Your task to perform on an android device: What's the weather going to be this weekend? Image 0: 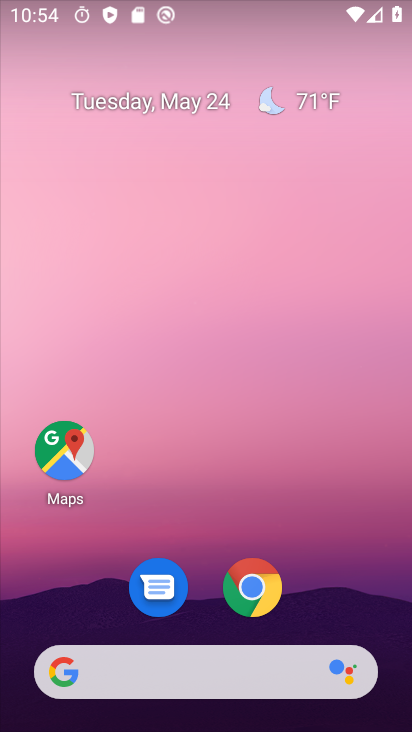
Step 0: drag from (285, 518) to (188, 215)
Your task to perform on an android device: What's the weather going to be this weekend? Image 1: 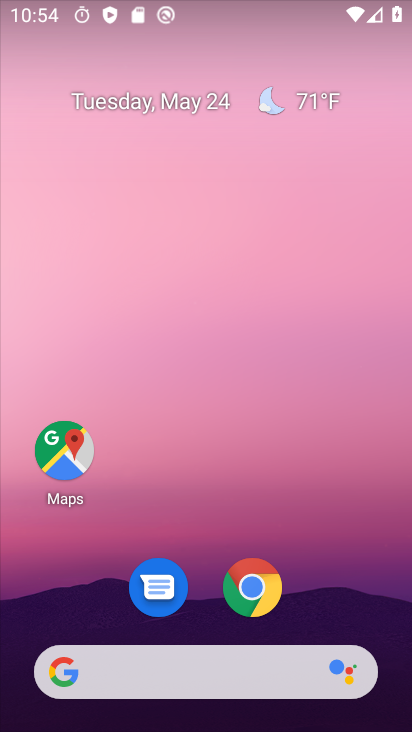
Step 1: drag from (277, 554) to (181, 191)
Your task to perform on an android device: What's the weather going to be this weekend? Image 2: 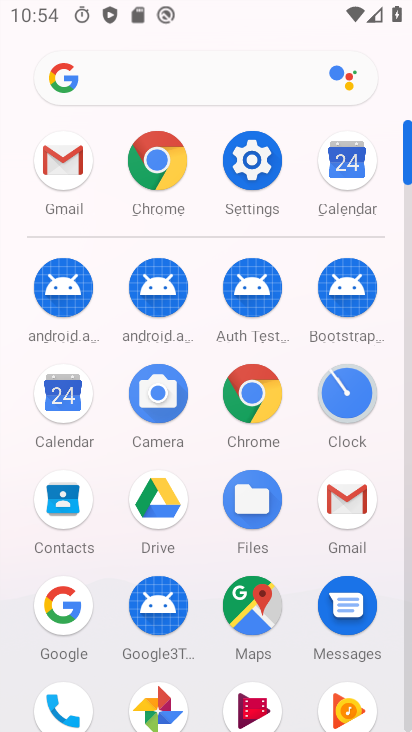
Step 2: press back button
Your task to perform on an android device: What's the weather going to be this weekend? Image 3: 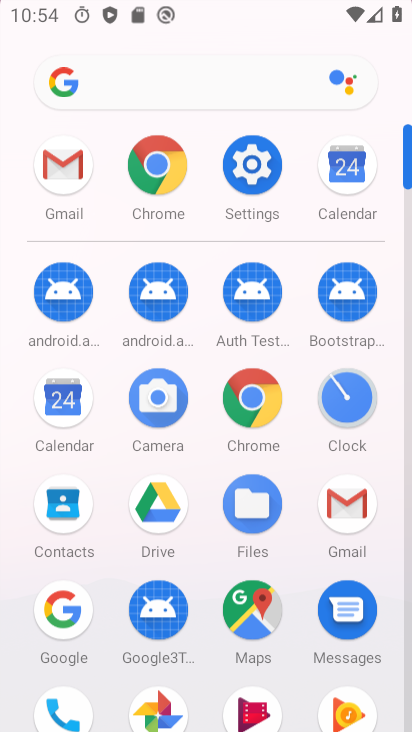
Step 3: press back button
Your task to perform on an android device: What's the weather going to be this weekend? Image 4: 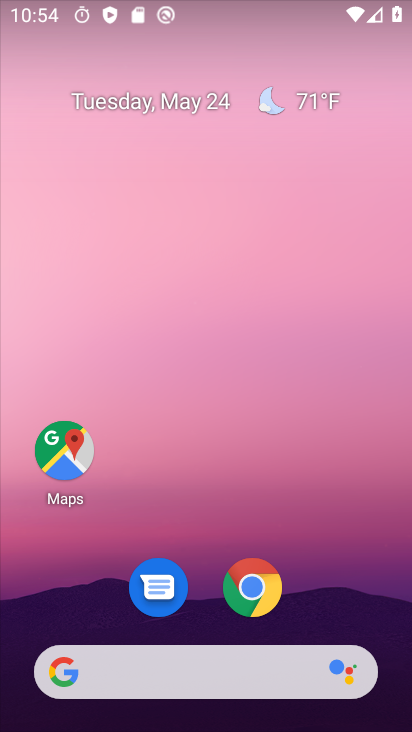
Step 4: press back button
Your task to perform on an android device: What's the weather going to be this weekend? Image 5: 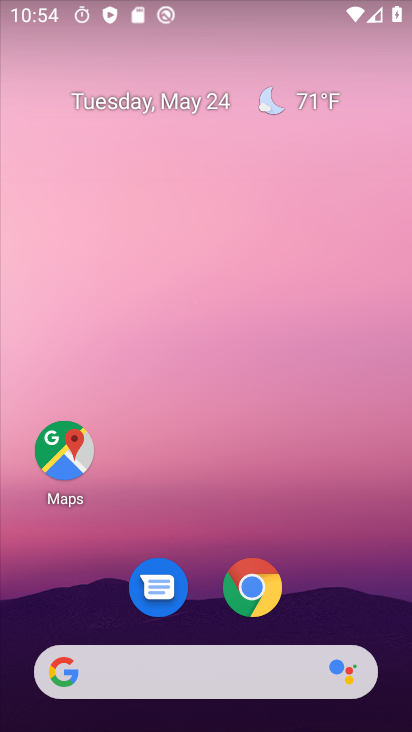
Step 5: press back button
Your task to perform on an android device: What's the weather going to be this weekend? Image 6: 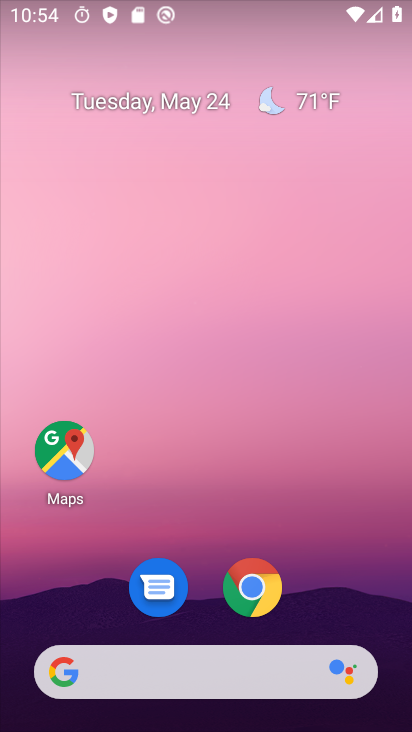
Step 6: drag from (5, 133) to (391, 245)
Your task to perform on an android device: What's the weather going to be this weekend? Image 7: 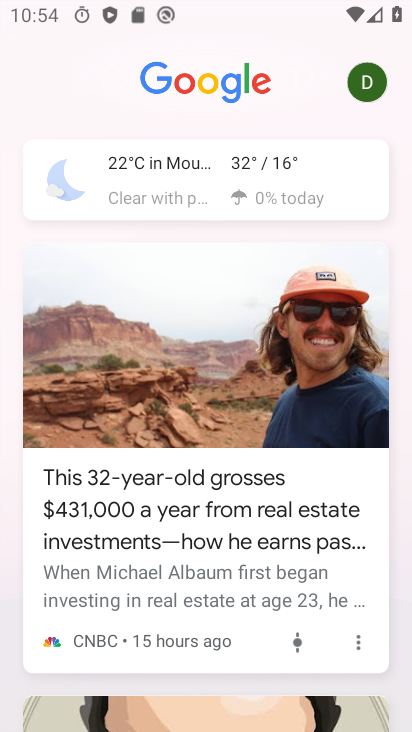
Step 7: click (149, 176)
Your task to perform on an android device: What's the weather going to be this weekend? Image 8: 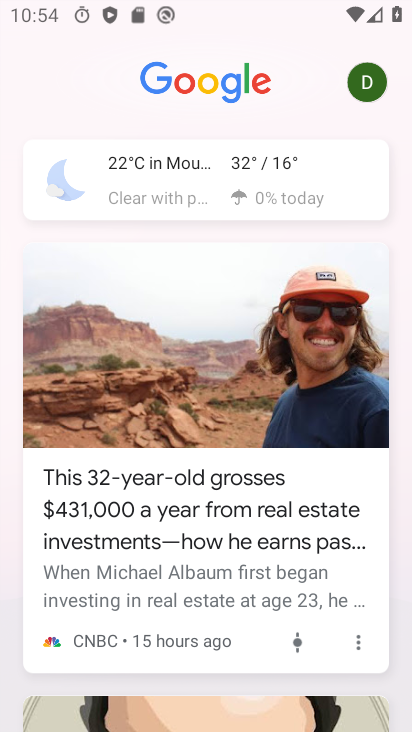
Step 8: click (156, 173)
Your task to perform on an android device: What's the weather going to be this weekend? Image 9: 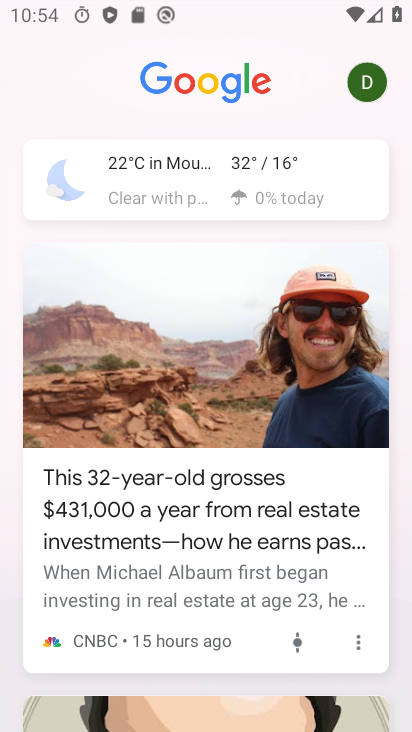
Step 9: click (158, 172)
Your task to perform on an android device: What's the weather going to be this weekend? Image 10: 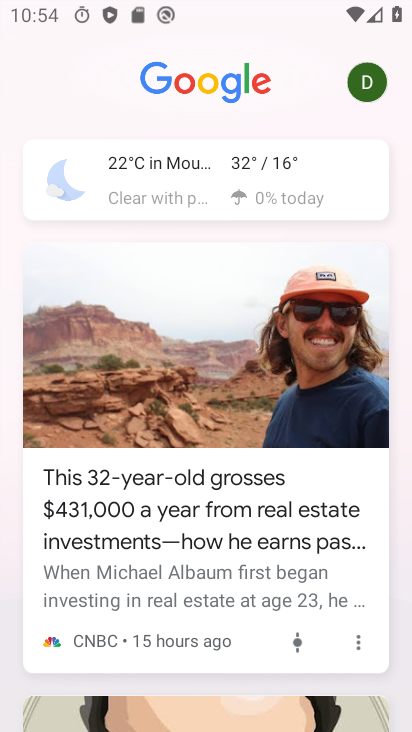
Step 10: click (164, 167)
Your task to perform on an android device: What's the weather going to be this weekend? Image 11: 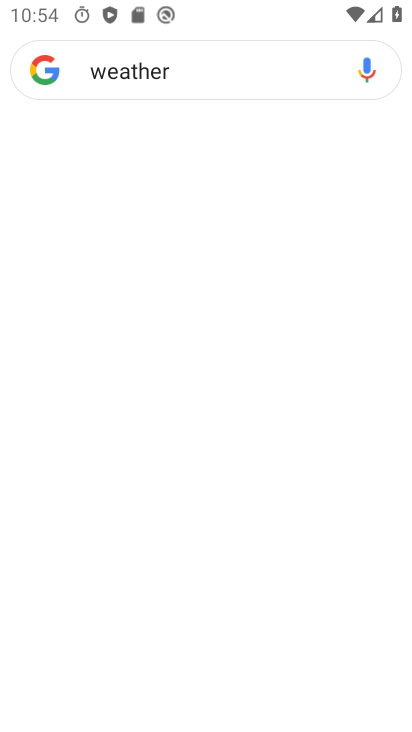
Step 11: click (177, 175)
Your task to perform on an android device: What's the weather going to be this weekend? Image 12: 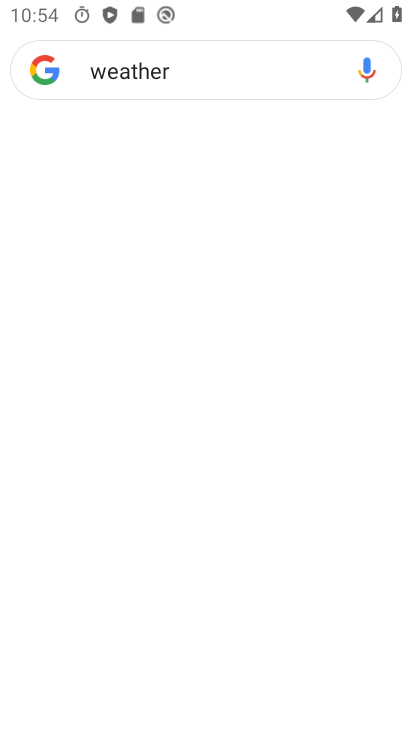
Step 12: click (178, 176)
Your task to perform on an android device: What's the weather going to be this weekend? Image 13: 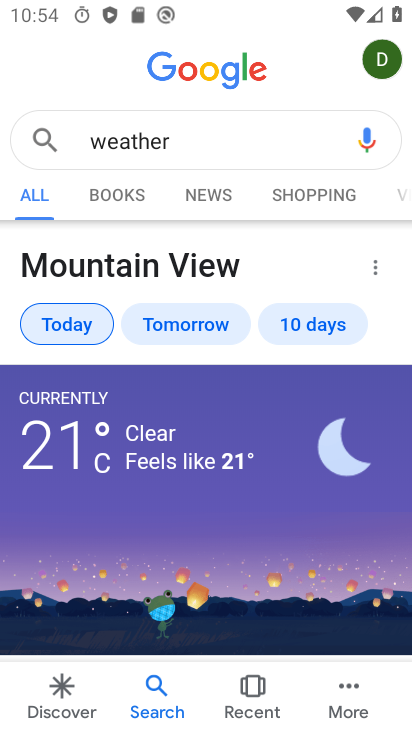
Step 13: drag from (190, 484) to (183, 323)
Your task to perform on an android device: What's the weather going to be this weekend? Image 14: 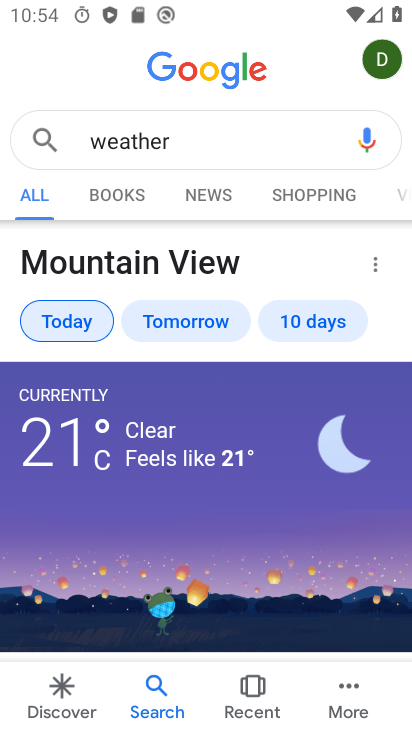
Step 14: drag from (181, 508) to (221, 268)
Your task to perform on an android device: What's the weather going to be this weekend? Image 15: 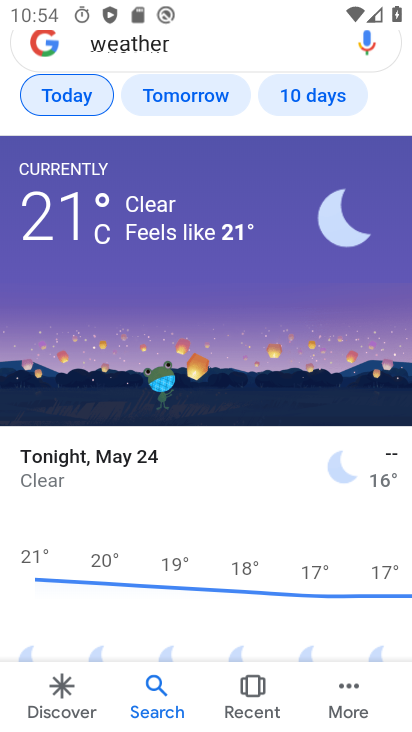
Step 15: drag from (230, 463) to (283, 181)
Your task to perform on an android device: What's the weather going to be this weekend? Image 16: 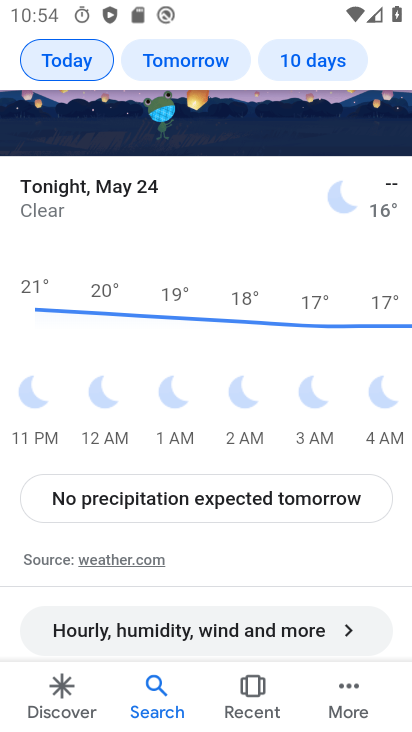
Step 16: drag from (237, 530) to (181, 61)
Your task to perform on an android device: What's the weather going to be this weekend? Image 17: 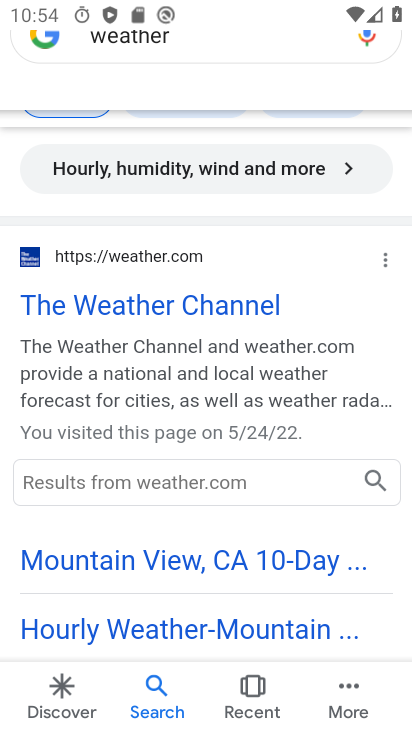
Step 17: drag from (163, 505) to (186, 198)
Your task to perform on an android device: What's the weather going to be this weekend? Image 18: 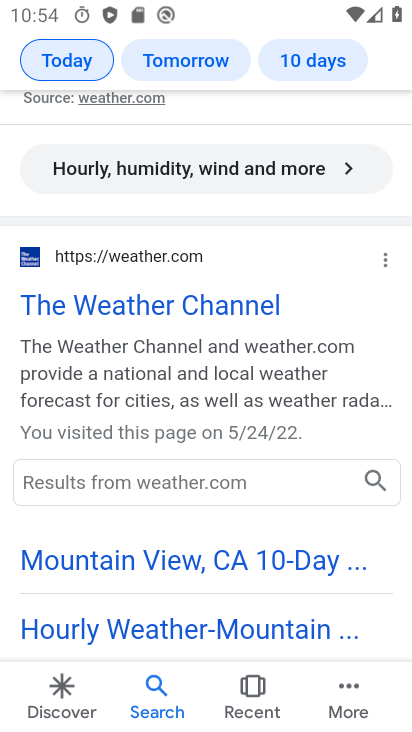
Step 18: drag from (186, 196) to (250, 665)
Your task to perform on an android device: What's the weather going to be this weekend? Image 19: 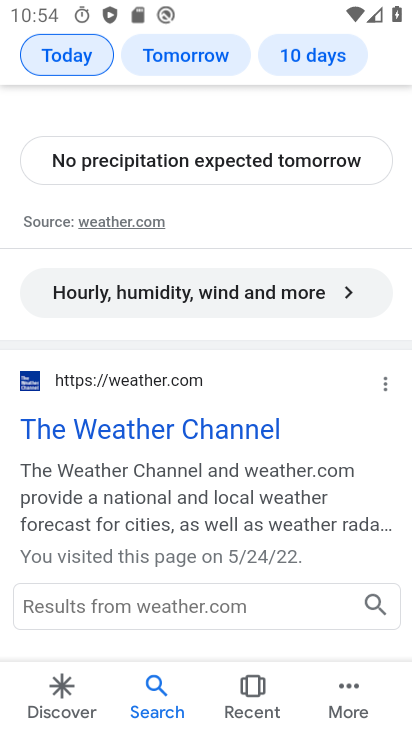
Step 19: drag from (187, 370) to (220, 563)
Your task to perform on an android device: What's the weather going to be this weekend? Image 20: 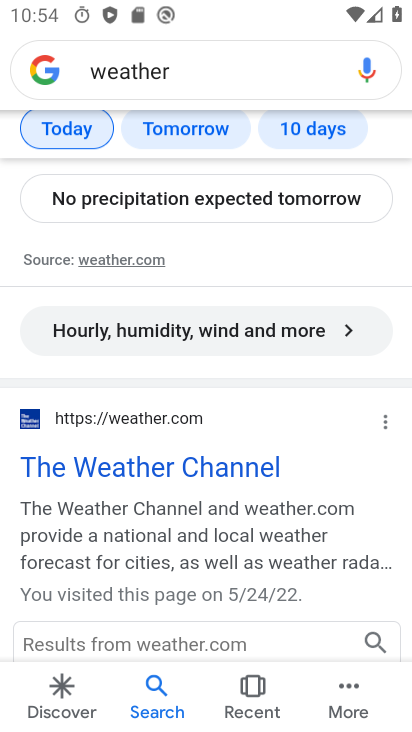
Step 20: drag from (168, 205) to (254, 615)
Your task to perform on an android device: What's the weather going to be this weekend? Image 21: 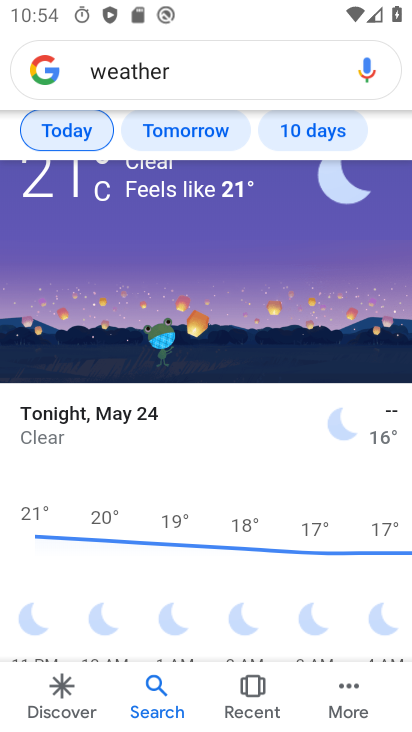
Step 21: drag from (174, 302) to (210, 647)
Your task to perform on an android device: What's the weather going to be this weekend? Image 22: 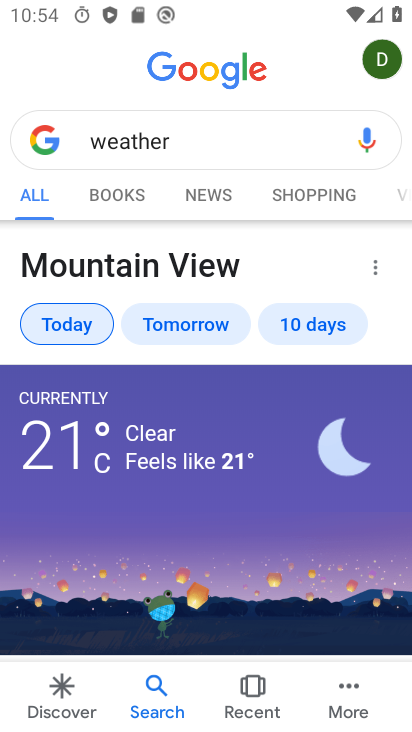
Step 22: drag from (171, 534) to (198, 679)
Your task to perform on an android device: What's the weather going to be this weekend? Image 23: 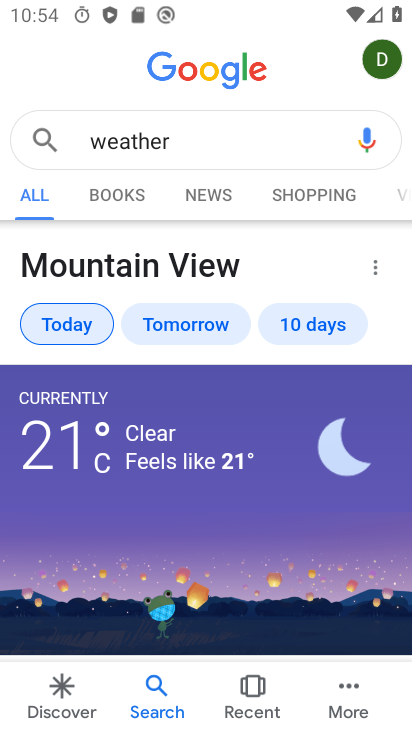
Step 23: drag from (203, 403) to (229, 568)
Your task to perform on an android device: What's the weather going to be this weekend? Image 24: 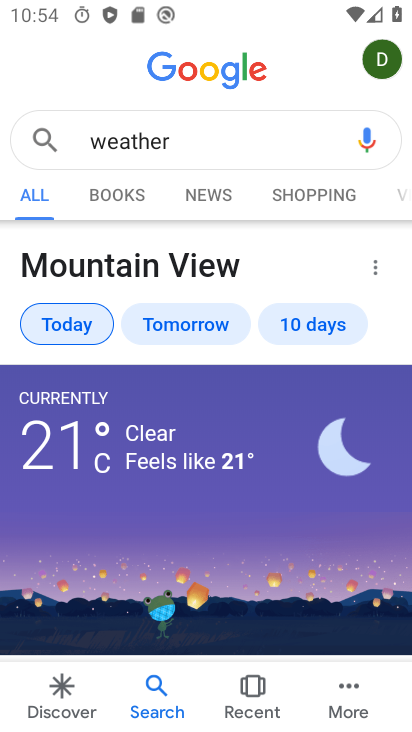
Step 24: drag from (193, 458) to (269, 583)
Your task to perform on an android device: What's the weather going to be this weekend? Image 25: 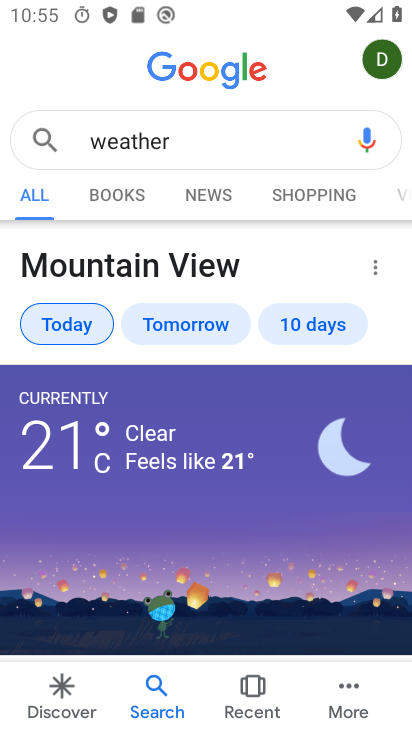
Step 25: click (301, 689)
Your task to perform on an android device: What's the weather going to be this weekend? Image 26: 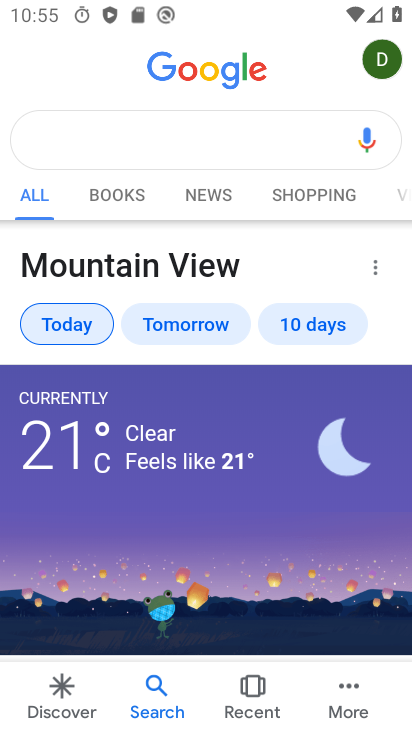
Step 26: click (225, 581)
Your task to perform on an android device: What's the weather going to be this weekend? Image 27: 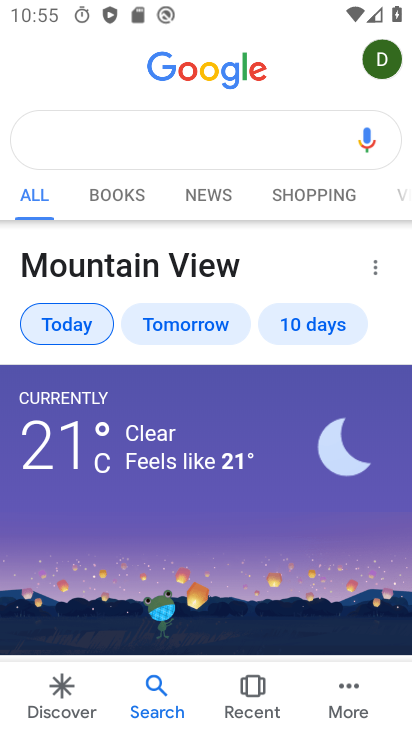
Step 27: click (159, 342)
Your task to perform on an android device: What's the weather going to be this weekend? Image 28: 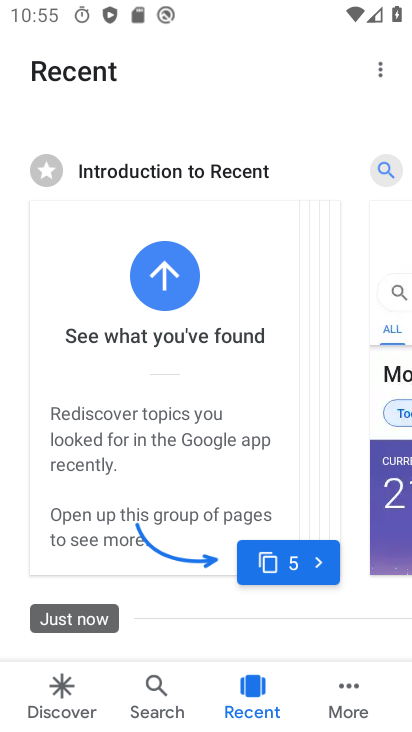
Step 28: task complete